Your task to perform on an android device: turn off javascript in the chrome app Image 0: 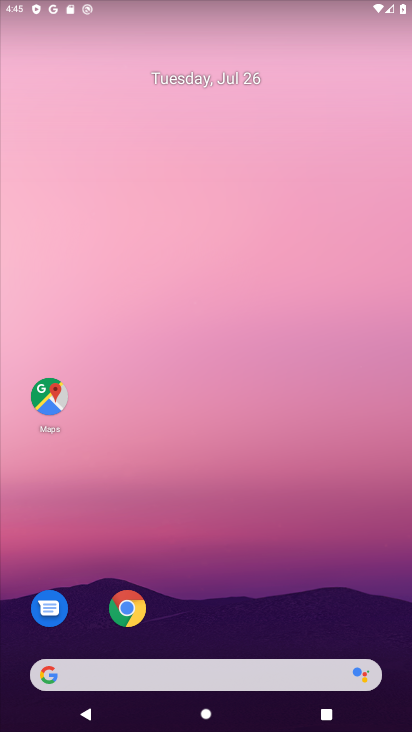
Step 0: click (128, 615)
Your task to perform on an android device: turn off javascript in the chrome app Image 1: 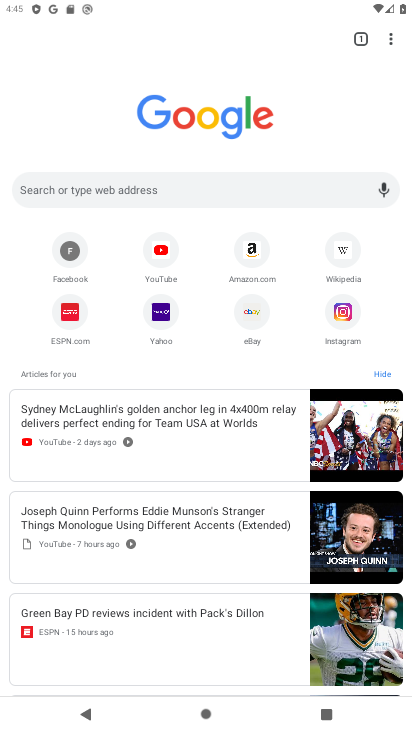
Step 1: click (387, 43)
Your task to perform on an android device: turn off javascript in the chrome app Image 2: 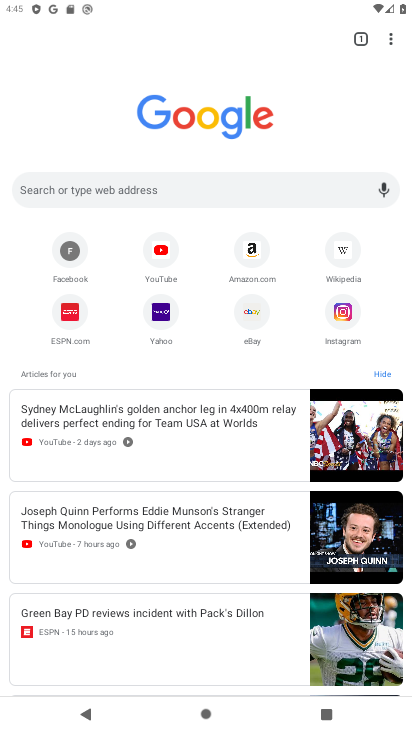
Step 2: click (395, 36)
Your task to perform on an android device: turn off javascript in the chrome app Image 3: 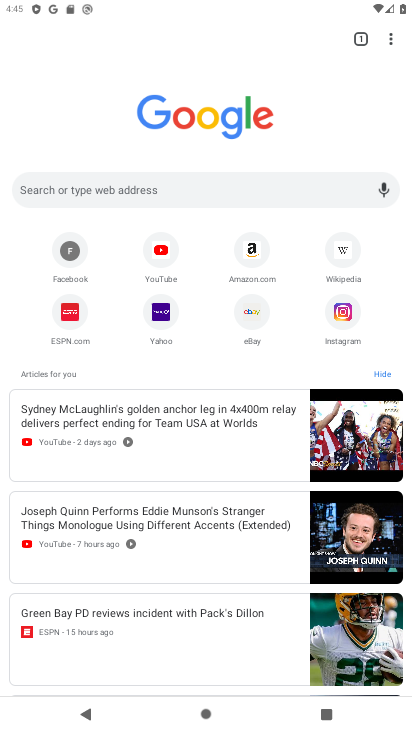
Step 3: click (389, 40)
Your task to perform on an android device: turn off javascript in the chrome app Image 4: 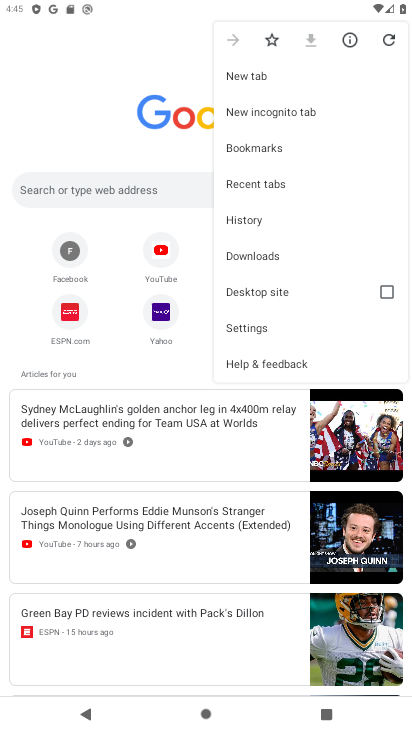
Step 4: click (252, 329)
Your task to perform on an android device: turn off javascript in the chrome app Image 5: 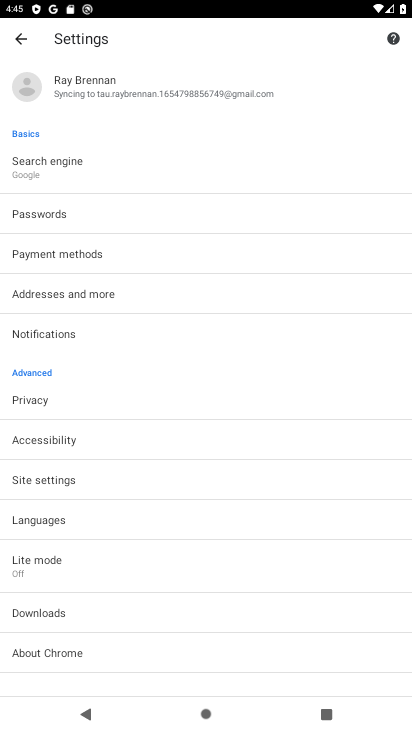
Step 5: click (37, 481)
Your task to perform on an android device: turn off javascript in the chrome app Image 6: 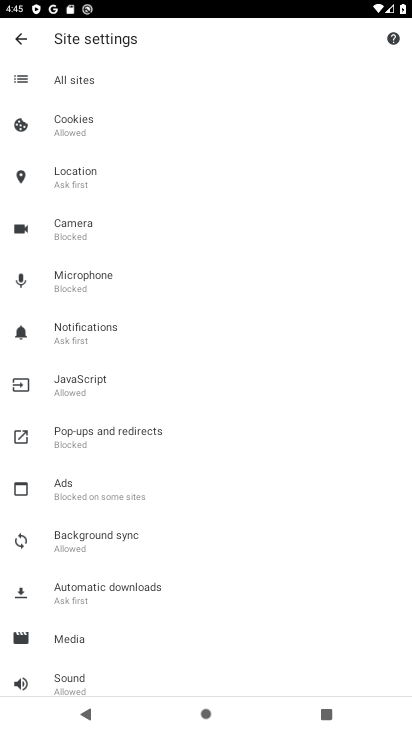
Step 6: click (77, 389)
Your task to perform on an android device: turn off javascript in the chrome app Image 7: 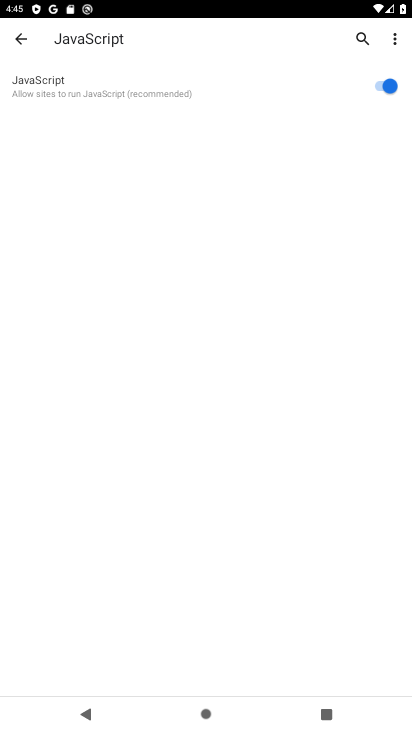
Step 7: click (379, 90)
Your task to perform on an android device: turn off javascript in the chrome app Image 8: 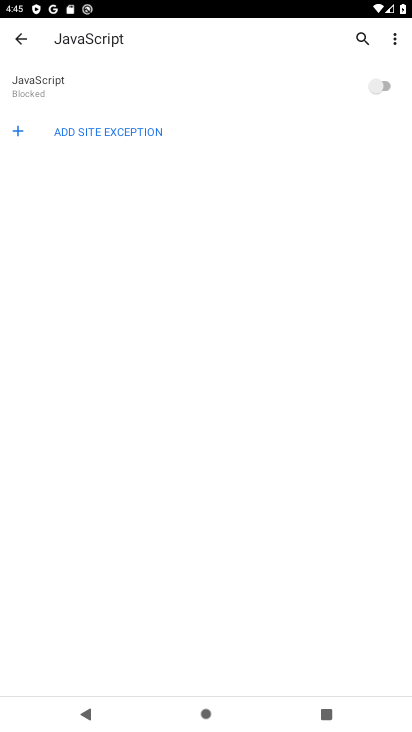
Step 8: task complete